Your task to perform on an android device: Open display settings Image 0: 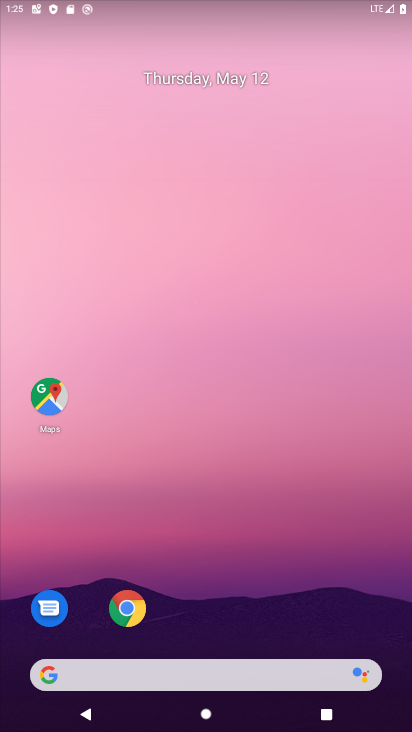
Step 0: drag from (295, 588) to (309, 27)
Your task to perform on an android device: Open display settings Image 1: 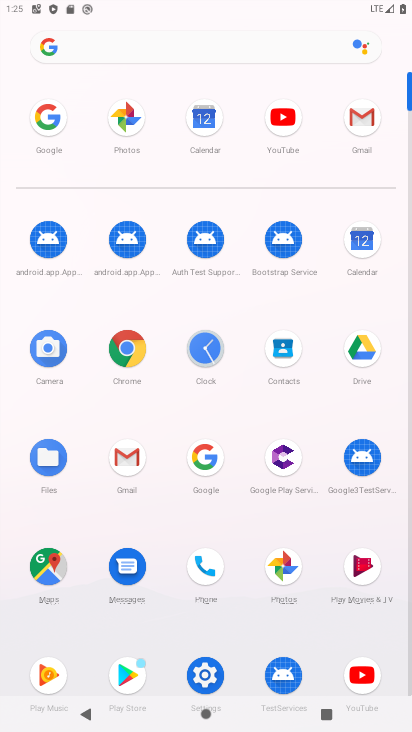
Step 1: click (204, 664)
Your task to perform on an android device: Open display settings Image 2: 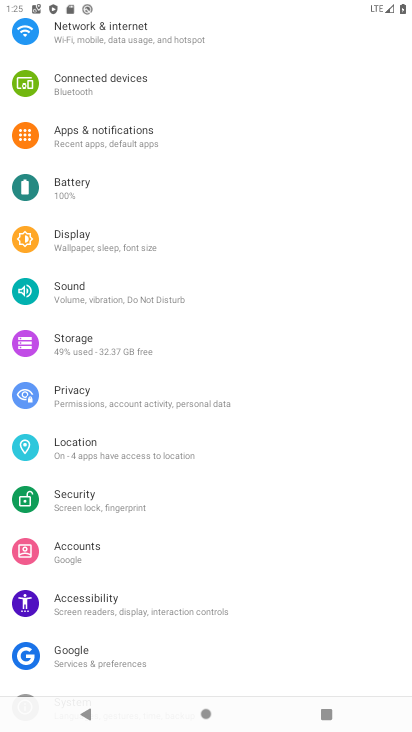
Step 2: click (61, 243)
Your task to perform on an android device: Open display settings Image 3: 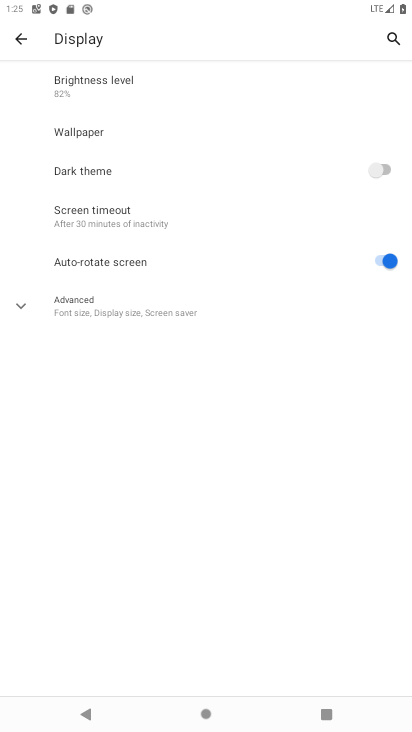
Step 3: task complete